Your task to perform on an android device: toggle pop-ups in chrome Image 0: 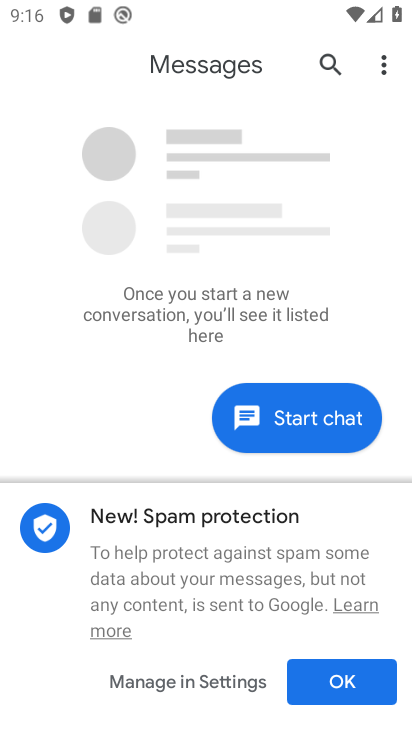
Step 0: press home button
Your task to perform on an android device: toggle pop-ups in chrome Image 1: 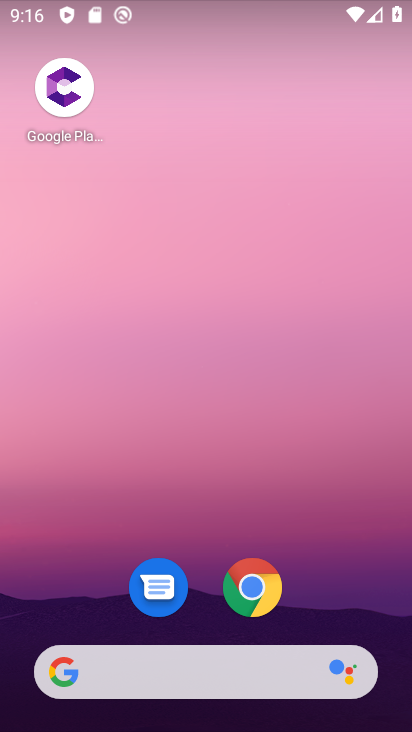
Step 1: click (261, 600)
Your task to perform on an android device: toggle pop-ups in chrome Image 2: 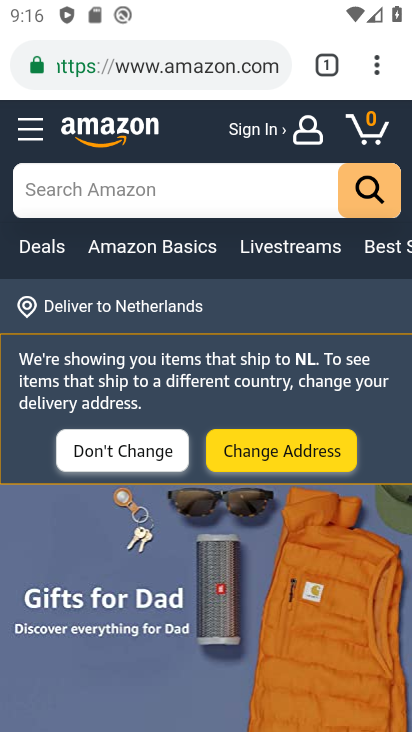
Step 2: drag from (378, 60) to (180, 627)
Your task to perform on an android device: toggle pop-ups in chrome Image 3: 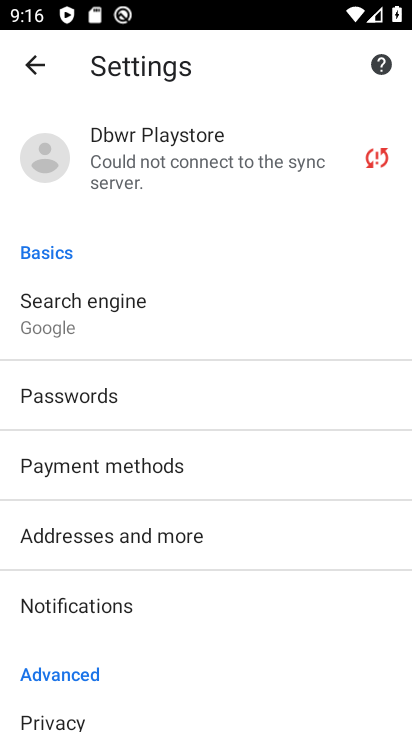
Step 3: drag from (116, 650) to (122, 84)
Your task to perform on an android device: toggle pop-ups in chrome Image 4: 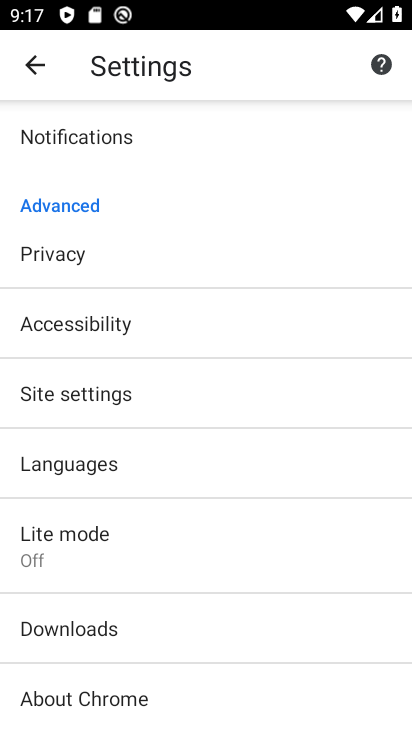
Step 4: click (117, 399)
Your task to perform on an android device: toggle pop-ups in chrome Image 5: 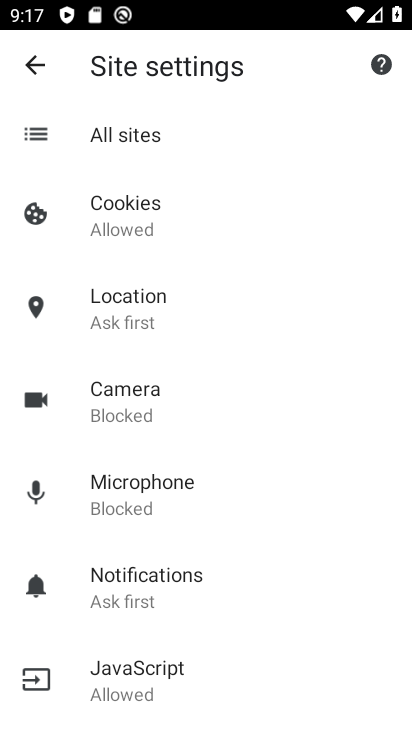
Step 5: drag from (151, 621) to (111, 155)
Your task to perform on an android device: toggle pop-ups in chrome Image 6: 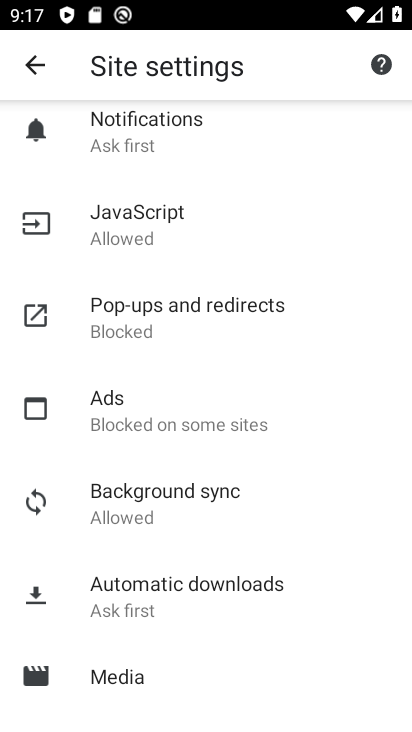
Step 6: click (128, 325)
Your task to perform on an android device: toggle pop-ups in chrome Image 7: 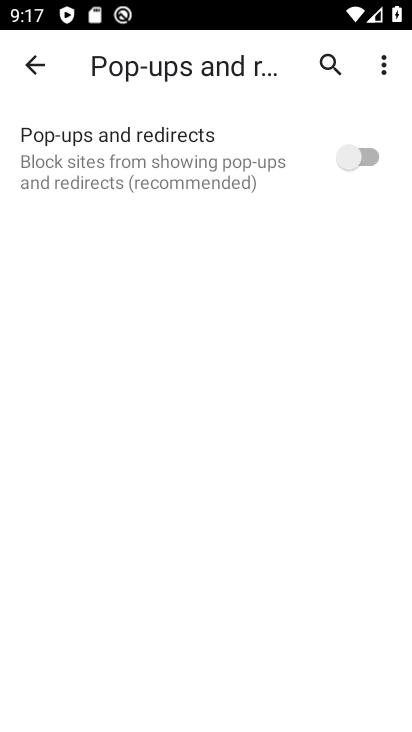
Step 7: click (360, 157)
Your task to perform on an android device: toggle pop-ups in chrome Image 8: 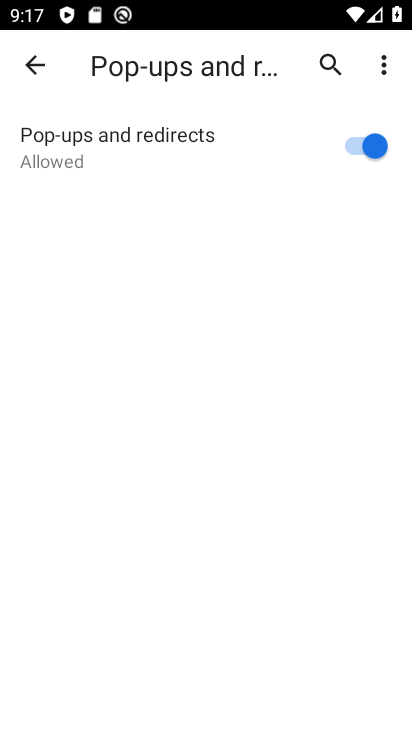
Step 8: task complete